Your task to perform on an android device: Open calendar and show me the third week of next month Image 0: 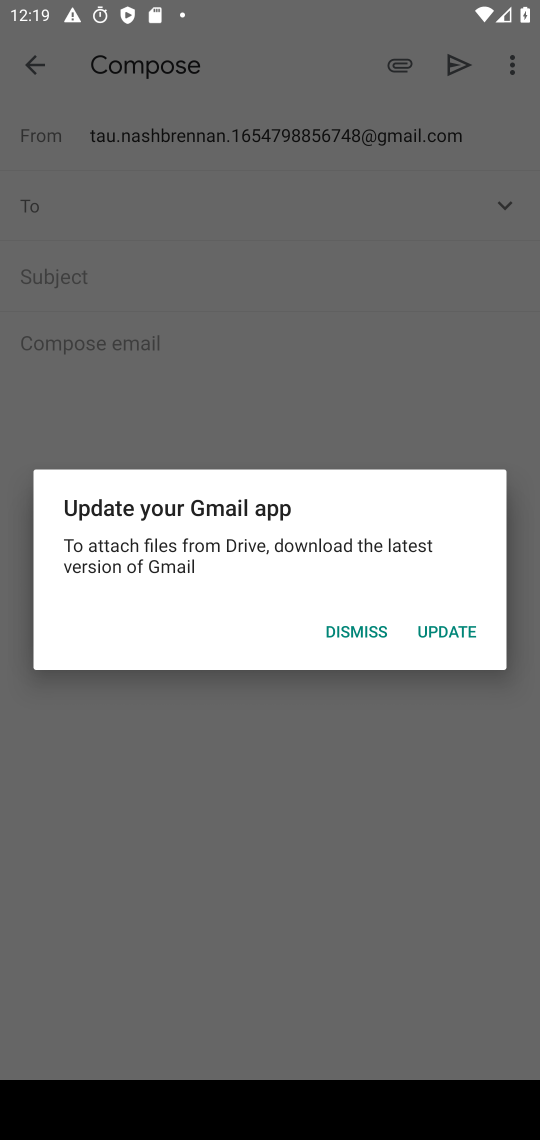
Step 0: press home button
Your task to perform on an android device: Open calendar and show me the third week of next month Image 1: 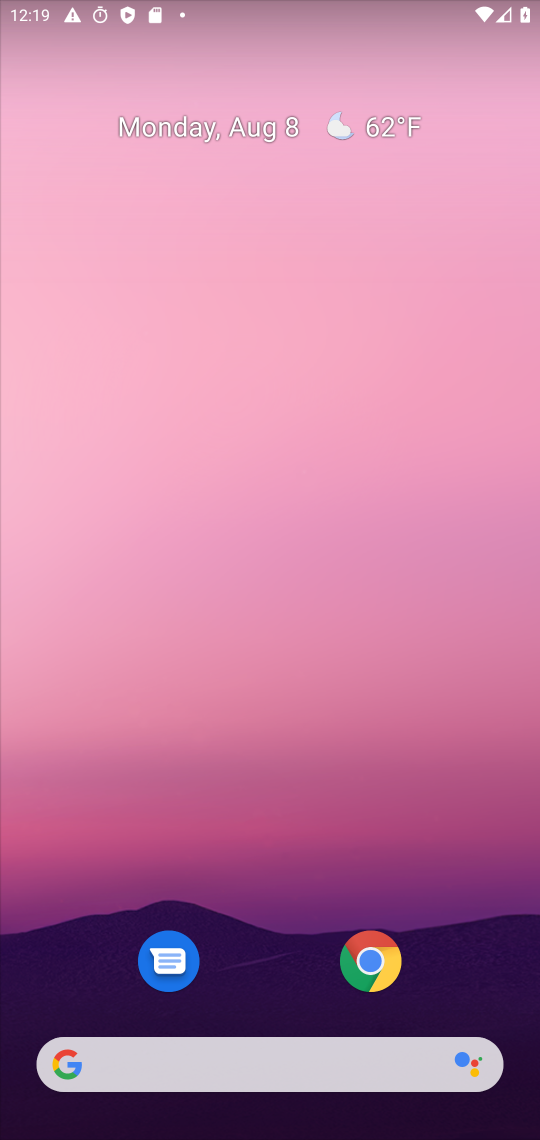
Step 1: drag from (240, 1034) to (13, 225)
Your task to perform on an android device: Open calendar and show me the third week of next month Image 2: 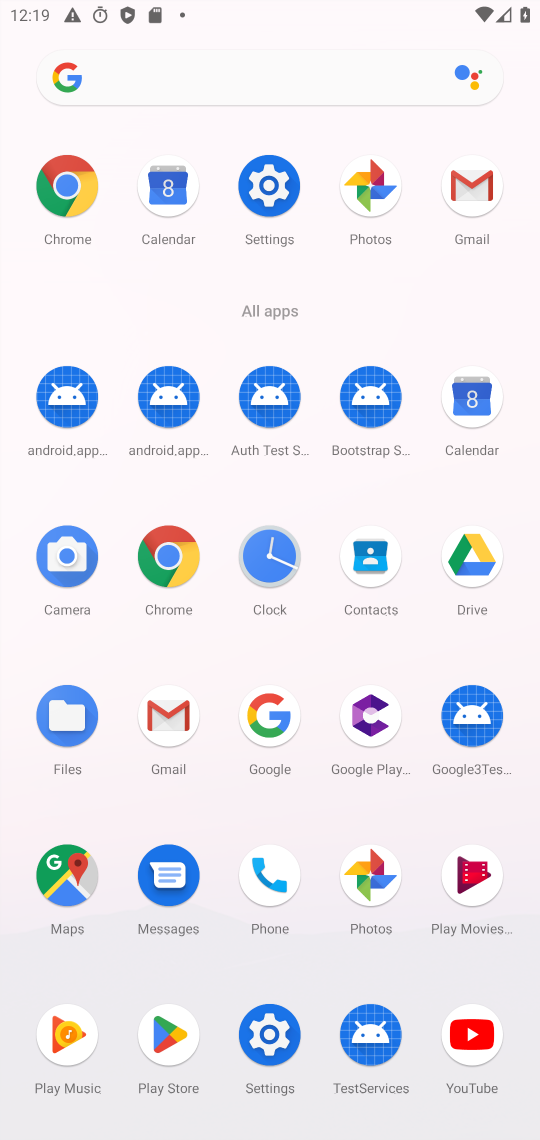
Step 2: click (468, 391)
Your task to perform on an android device: Open calendar and show me the third week of next month Image 3: 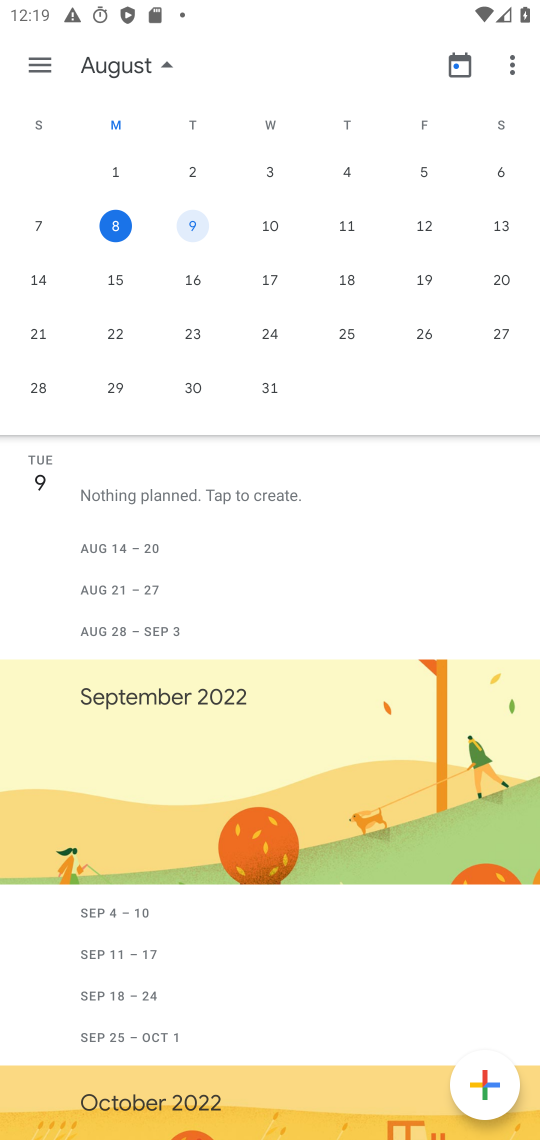
Step 3: click (164, 62)
Your task to perform on an android device: Open calendar and show me the third week of next month Image 4: 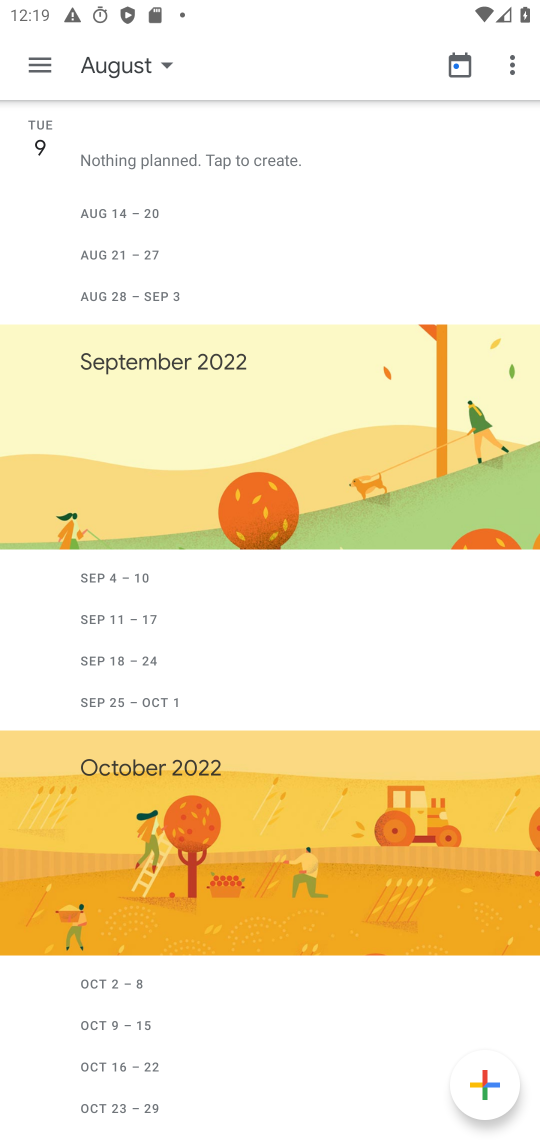
Step 4: click (164, 62)
Your task to perform on an android device: Open calendar and show me the third week of next month Image 5: 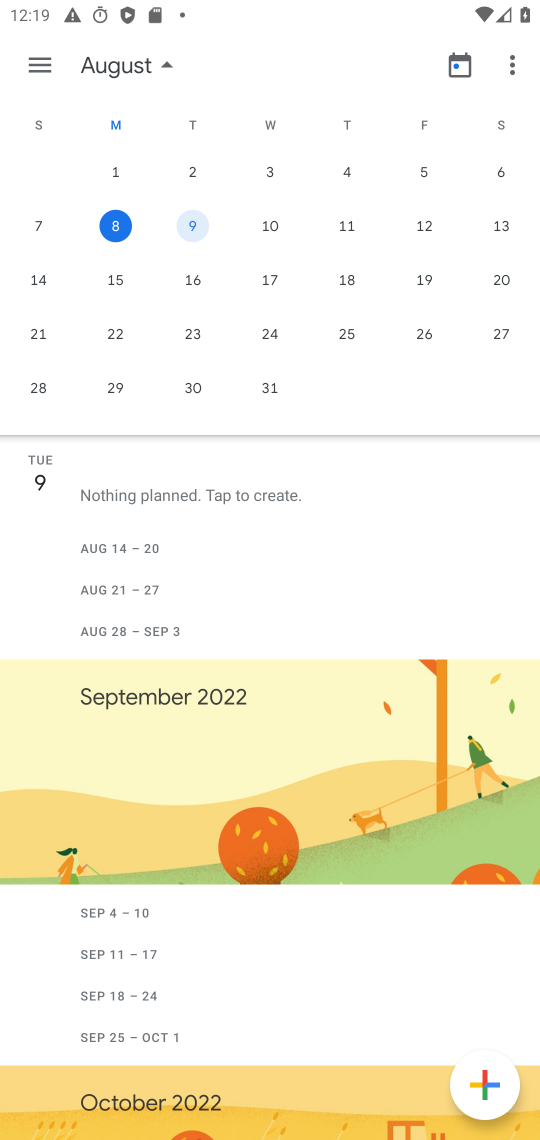
Step 5: drag from (489, 307) to (134, 266)
Your task to perform on an android device: Open calendar and show me the third week of next month Image 6: 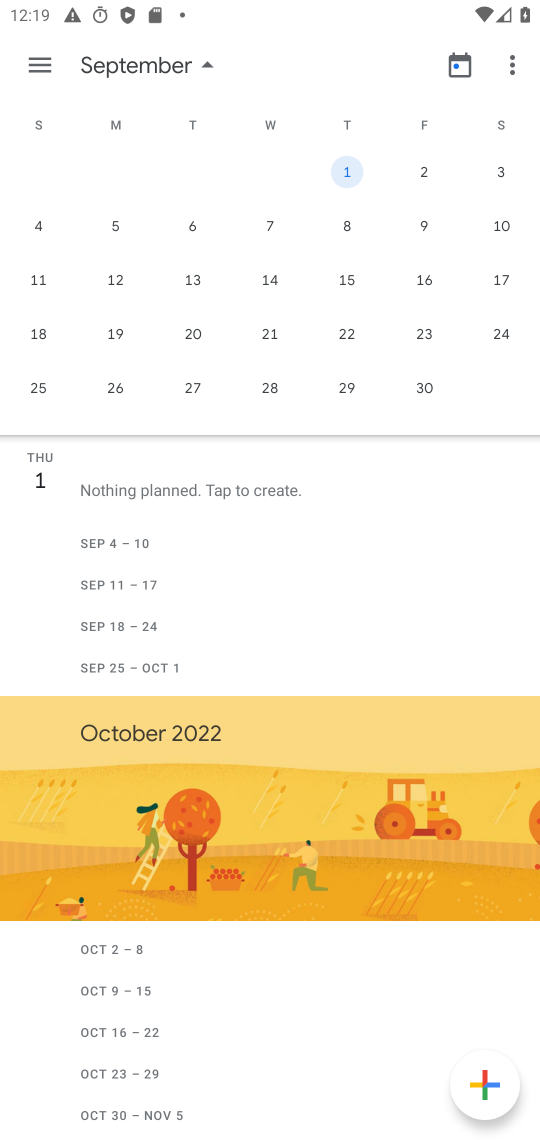
Step 6: click (268, 273)
Your task to perform on an android device: Open calendar and show me the third week of next month Image 7: 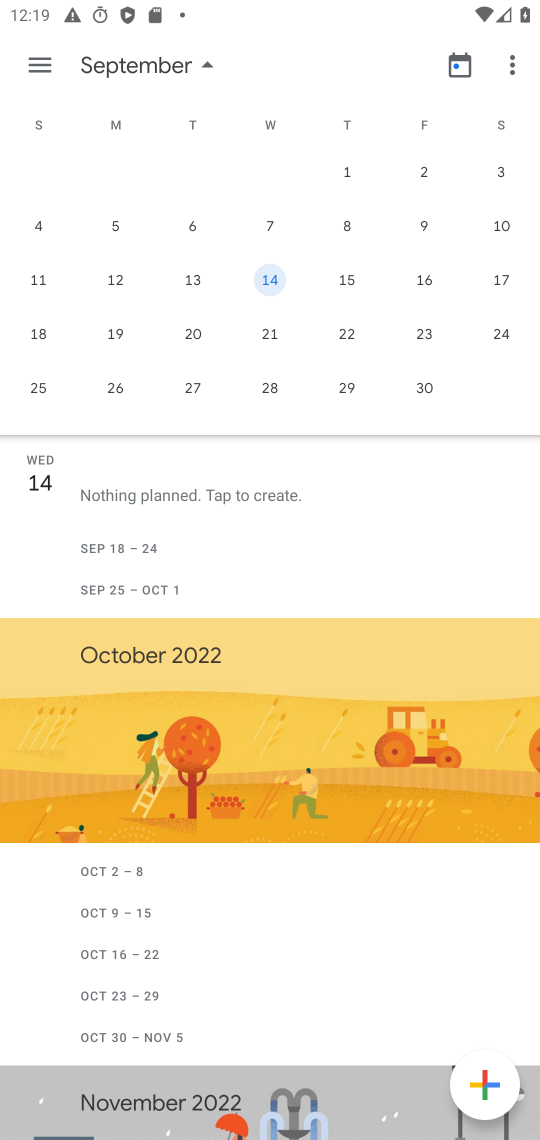
Step 7: click (50, 66)
Your task to perform on an android device: Open calendar and show me the third week of next month Image 8: 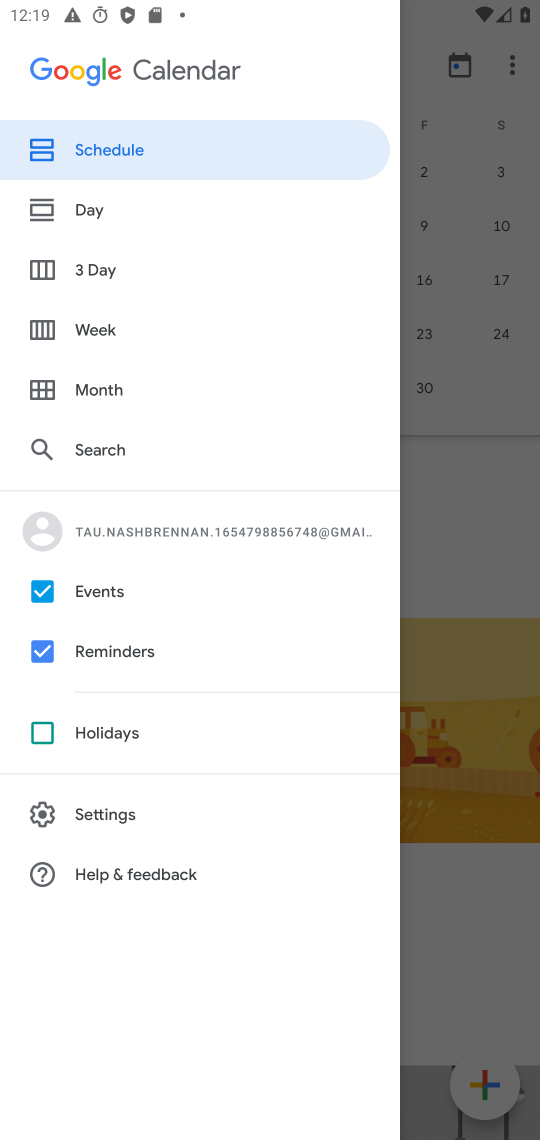
Step 8: click (123, 333)
Your task to perform on an android device: Open calendar and show me the third week of next month Image 9: 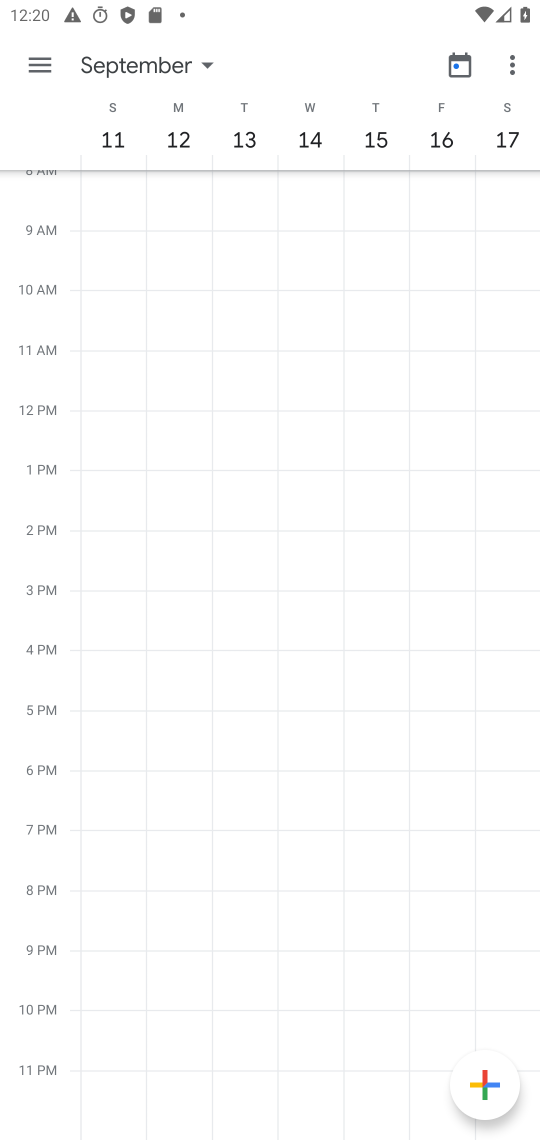
Step 9: task complete